Your task to perform on an android device: Open accessibility settings Image 0: 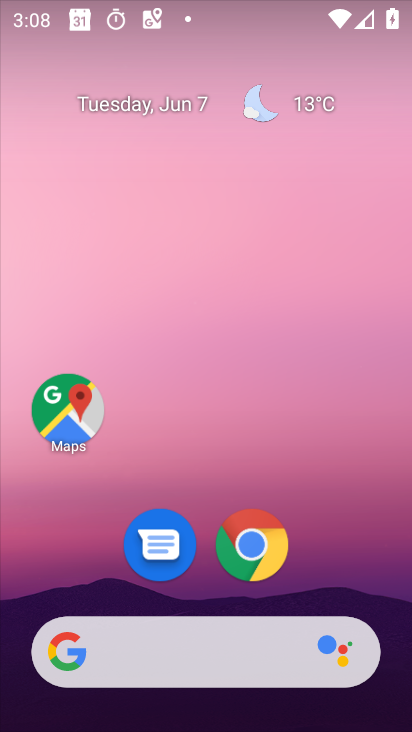
Step 0: drag from (345, 572) to (192, 36)
Your task to perform on an android device: Open accessibility settings Image 1: 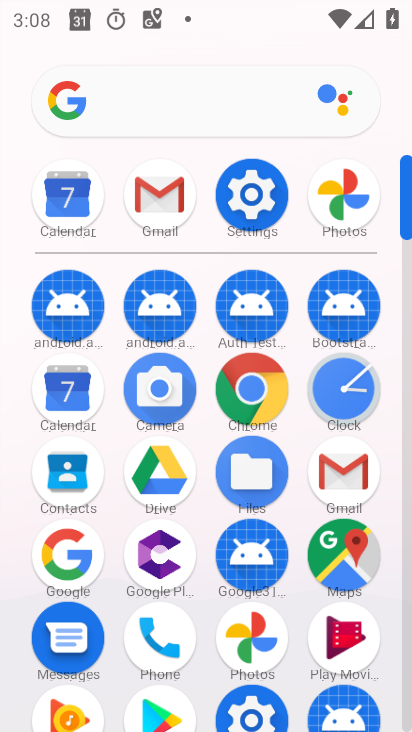
Step 1: click (236, 212)
Your task to perform on an android device: Open accessibility settings Image 2: 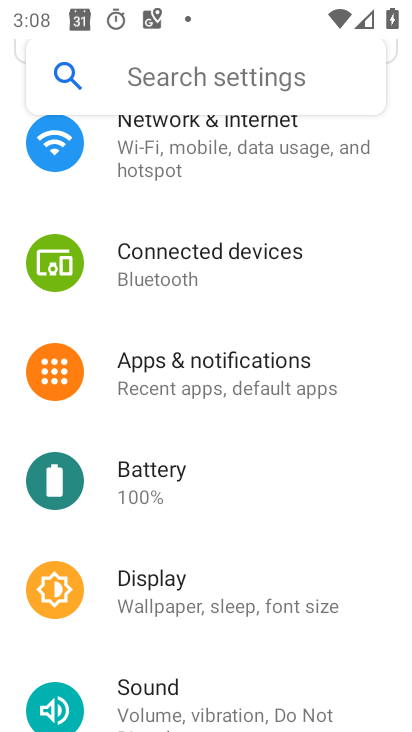
Step 2: drag from (262, 354) to (245, 14)
Your task to perform on an android device: Open accessibility settings Image 3: 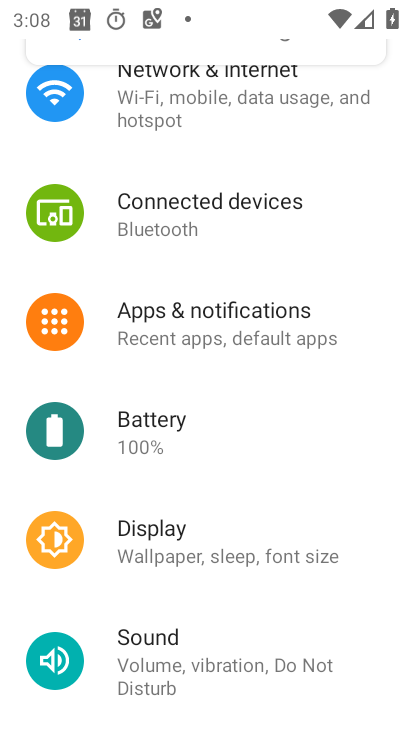
Step 3: drag from (266, 587) to (266, 58)
Your task to perform on an android device: Open accessibility settings Image 4: 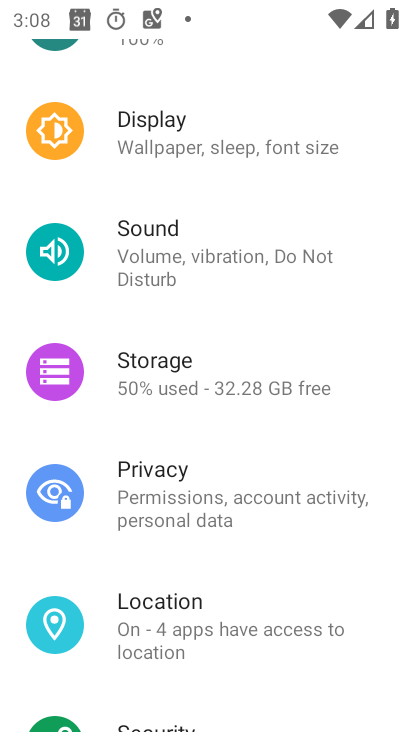
Step 4: drag from (248, 625) to (235, 40)
Your task to perform on an android device: Open accessibility settings Image 5: 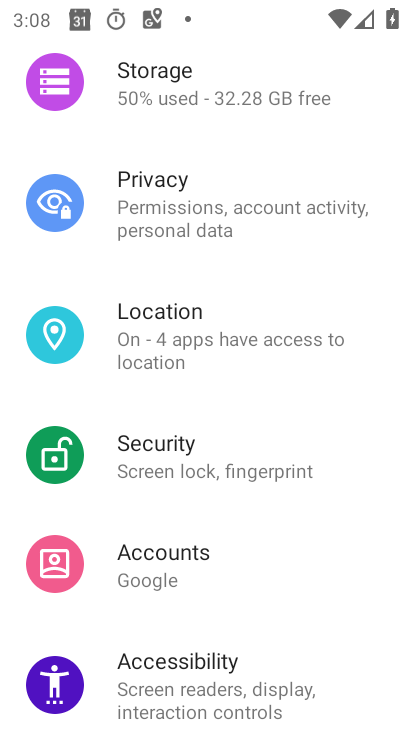
Step 5: click (220, 669)
Your task to perform on an android device: Open accessibility settings Image 6: 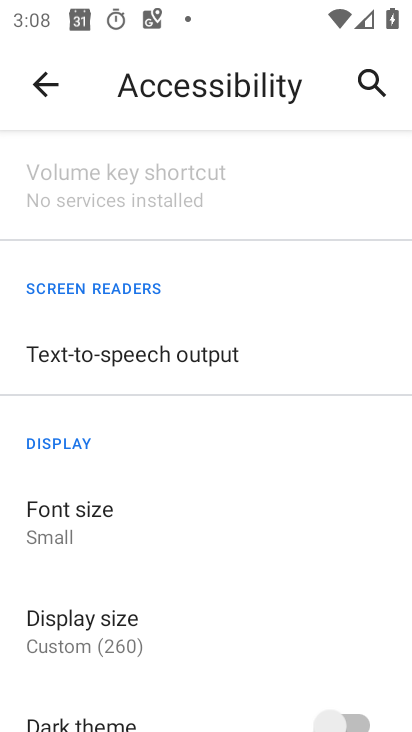
Step 6: task complete